Your task to perform on an android device: What's the weather going to be this weekend? Image 0: 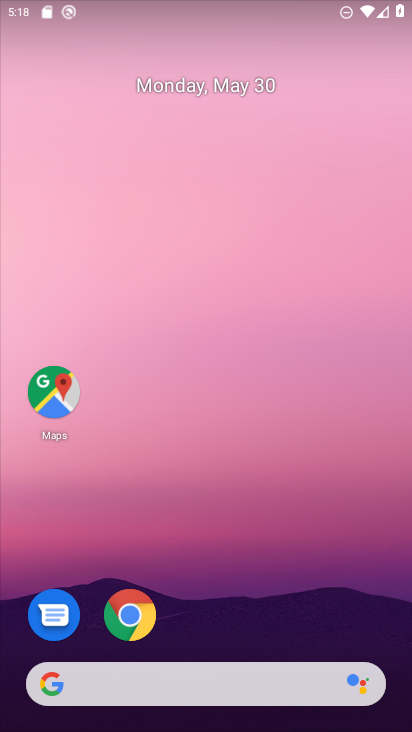
Step 0: click (174, 679)
Your task to perform on an android device: What's the weather going to be this weekend? Image 1: 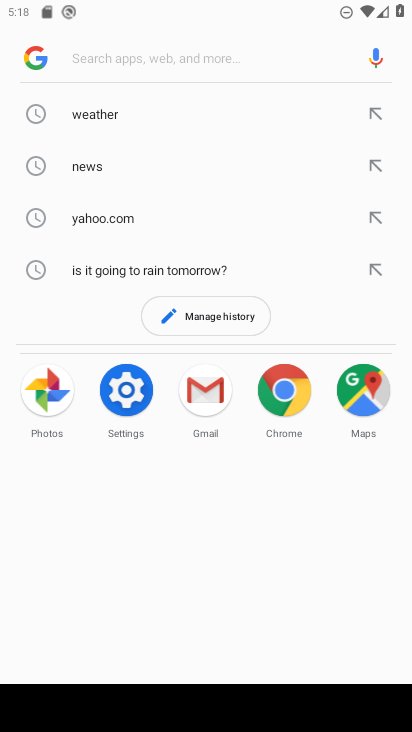
Step 1: click (132, 137)
Your task to perform on an android device: What's the weather going to be this weekend? Image 2: 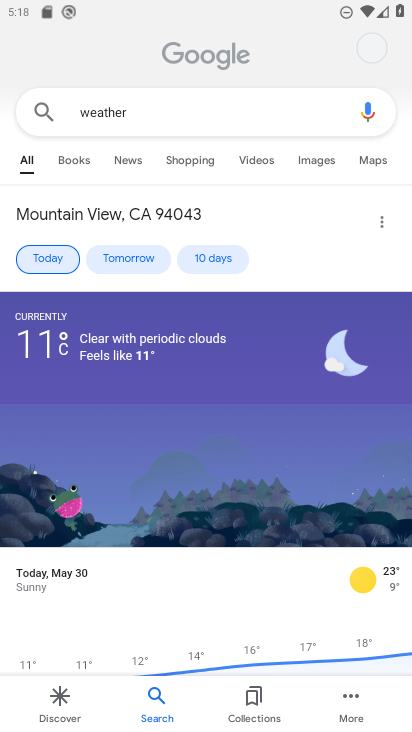
Step 2: task complete